Your task to perform on an android device: Go to calendar. Show me events next week Image 0: 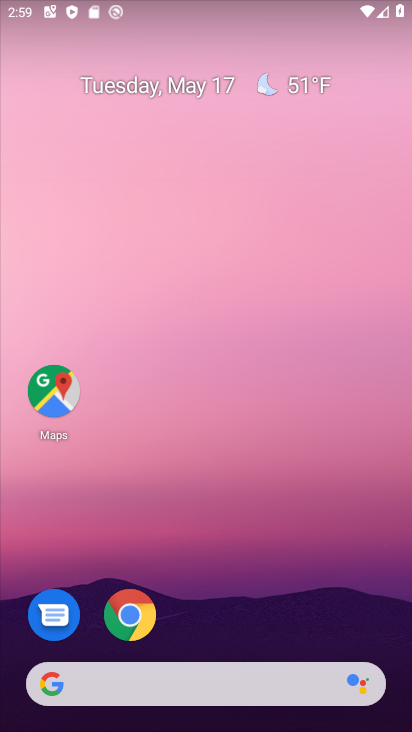
Step 0: drag from (202, 643) to (300, 129)
Your task to perform on an android device: Go to calendar. Show me events next week Image 1: 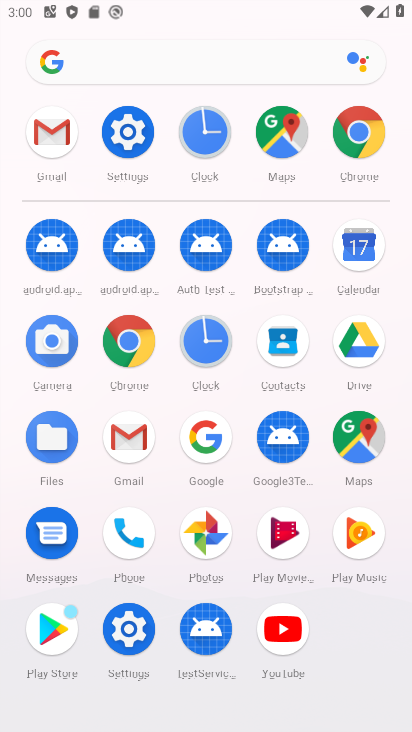
Step 1: click (357, 241)
Your task to perform on an android device: Go to calendar. Show me events next week Image 2: 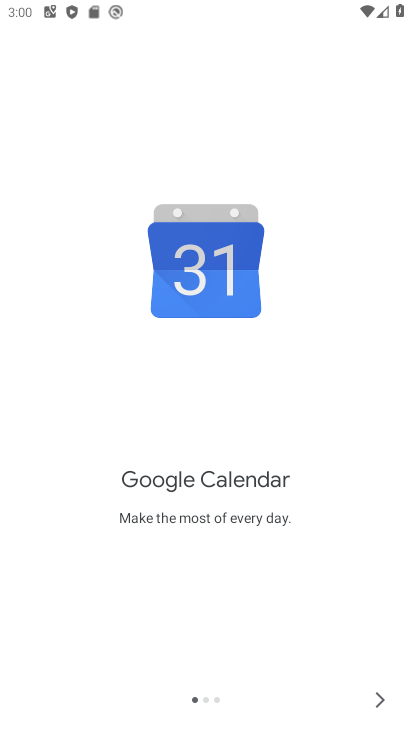
Step 2: click (372, 695)
Your task to perform on an android device: Go to calendar. Show me events next week Image 3: 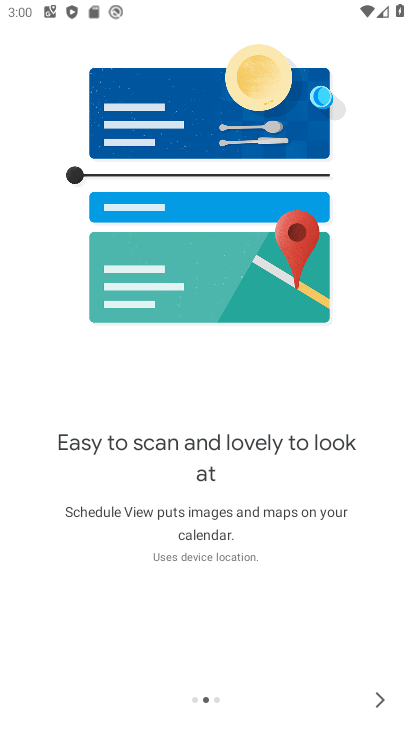
Step 3: click (372, 695)
Your task to perform on an android device: Go to calendar. Show me events next week Image 4: 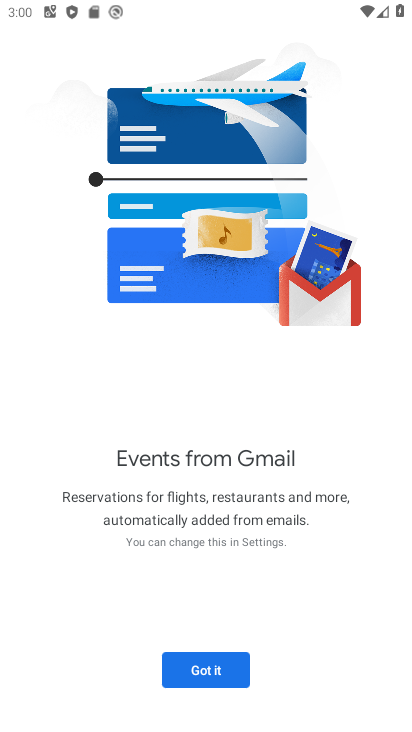
Step 4: click (208, 666)
Your task to perform on an android device: Go to calendar. Show me events next week Image 5: 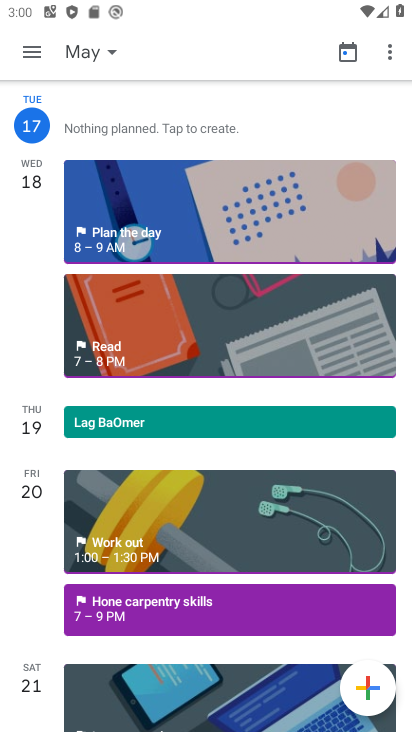
Step 5: click (33, 55)
Your task to perform on an android device: Go to calendar. Show me events next week Image 6: 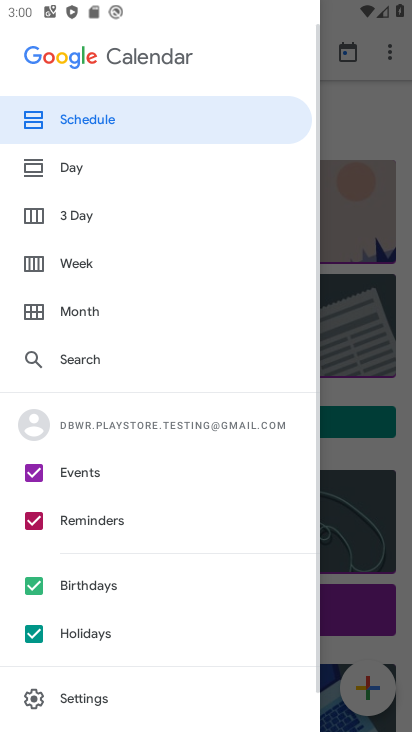
Step 6: click (61, 254)
Your task to perform on an android device: Go to calendar. Show me events next week Image 7: 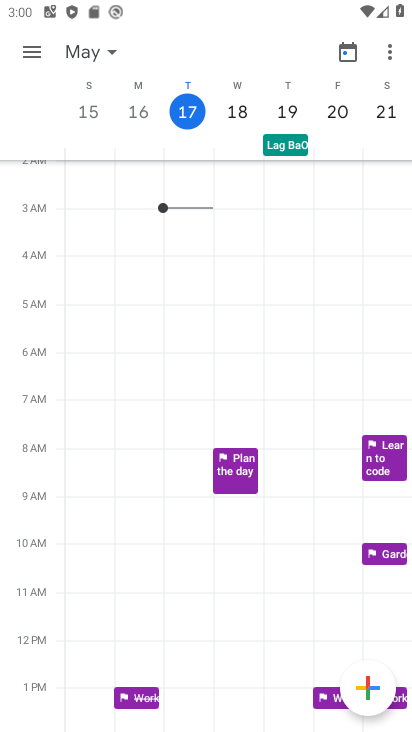
Step 7: drag from (367, 114) to (1, 142)
Your task to perform on an android device: Go to calendar. Show me events next week Image 8: 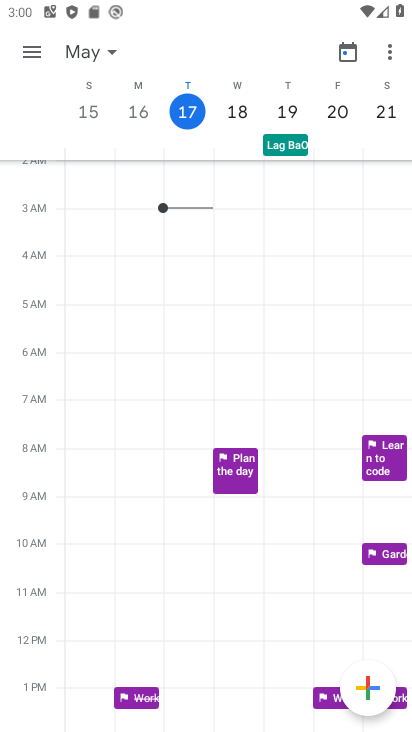
Step 8: drag from (383, 105) to (41, 116)
Your task to perform on an android device: Go to calendar. Show me events next week Image 9: 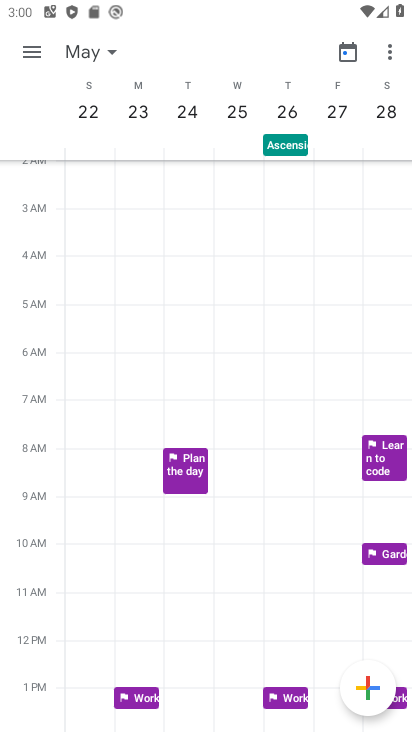
Step 9: click (89, 111)
Your task to perform on an android device: Go to calendar. Show me events next week Image 10: 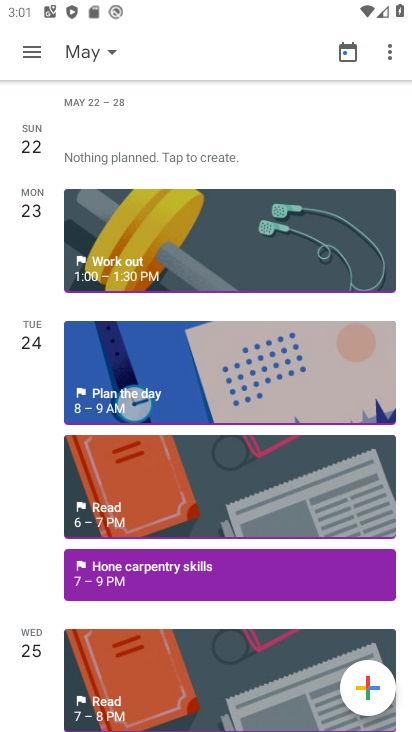
Step 10: task complete